Your task to perform on an android device: Open Wikipedia Image 0: 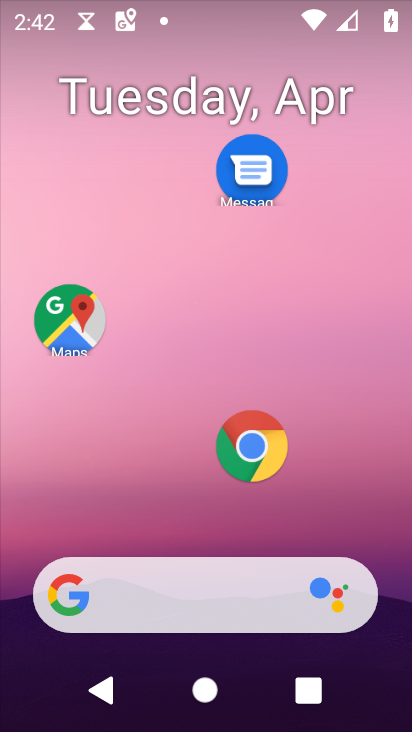
Step 0: click (256, 456)
Your task to perform on an android device: Open Wikipedia Image 1: 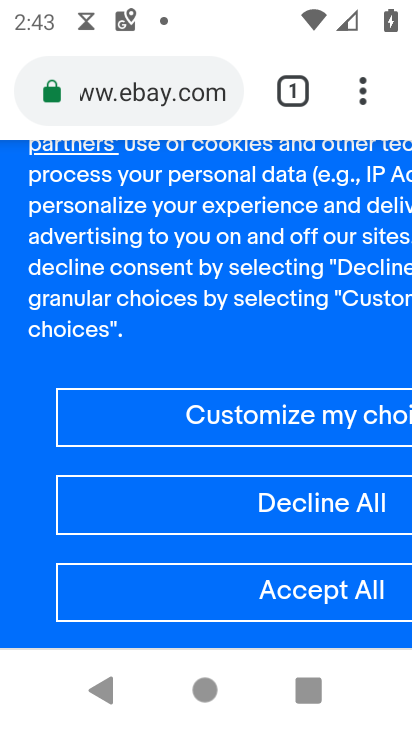
Step 1: click (174, 87)
Your task to perform on an android device: Open Wikipedia Image 2: 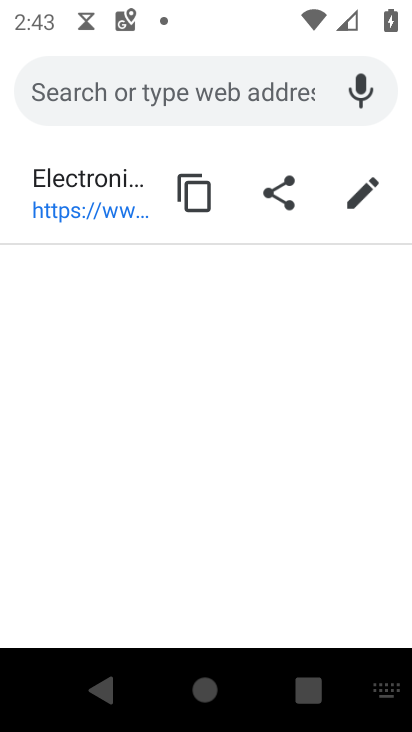
Step 2: type "Wikipedia"
Your task to perform on an android device: Open Wikipedia Image 3: 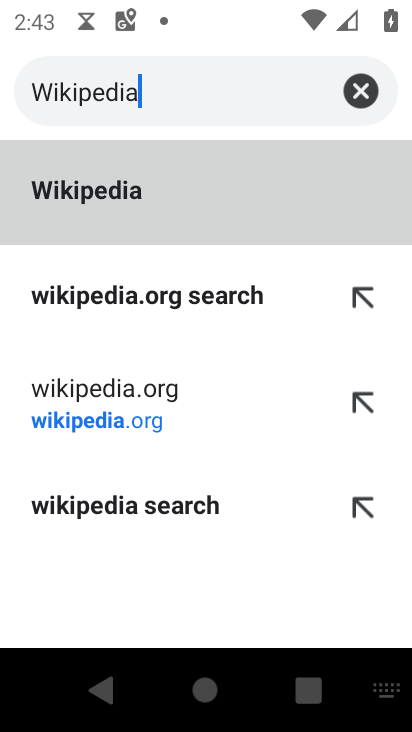
Step 3: click (147, 176)
Your task to perform on an android device: Open Wikipedia Image 4: 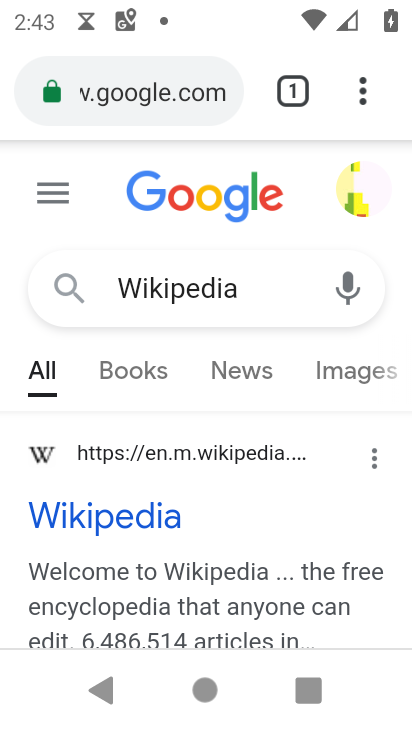
Step 4: click (120, 515)
Your task to perform on an android device: Open Wikipedia Image 5: 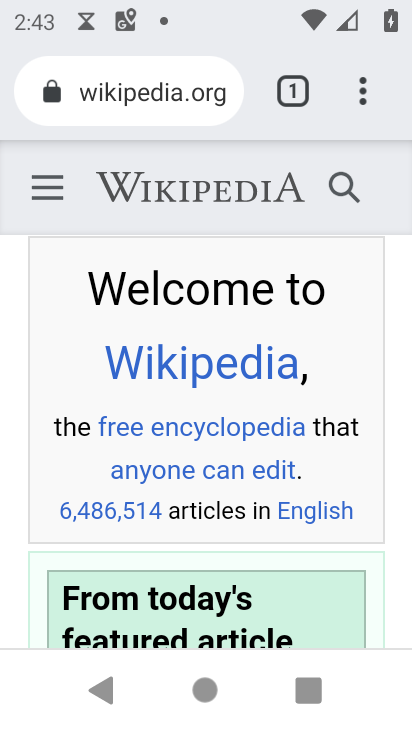
Step 5: task complete